Your task to perform on an android device: choose inbox layout in the gmail app Image 0: 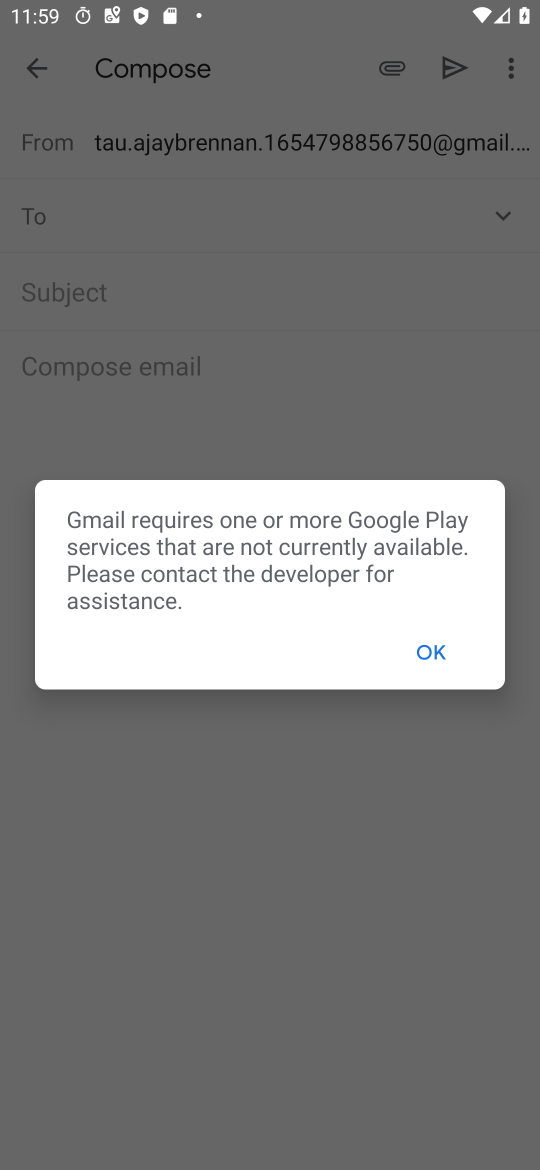
Step 0: click (420, 642)
Your task to perform on an android device: choose inbox layout in the gmail app Image 1: 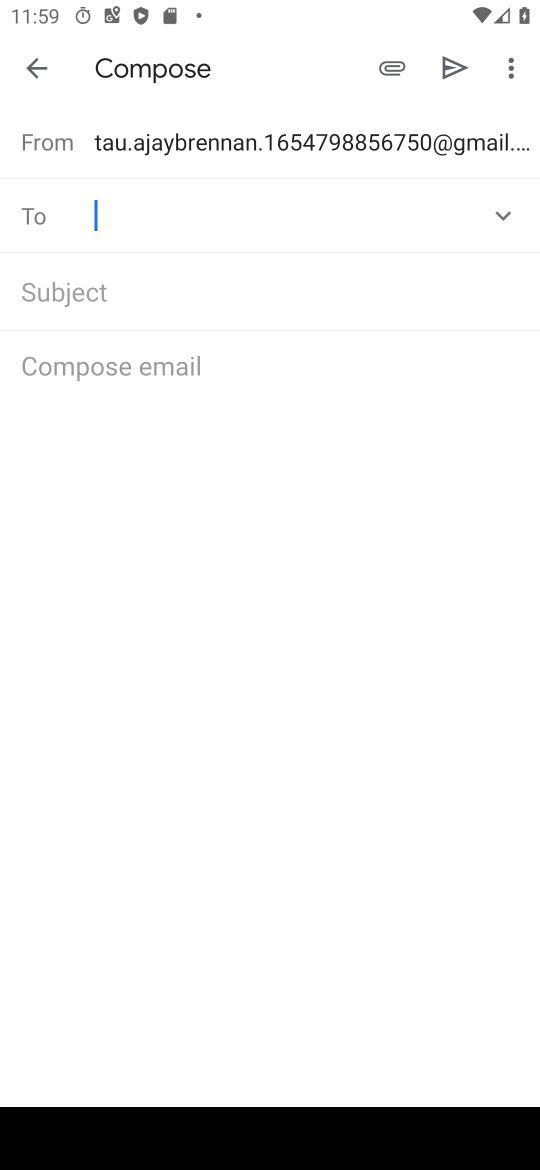
Step 1: click (40, 70)
Your task to perform on an android device: choose inbox layout in the gmail app Image 2: 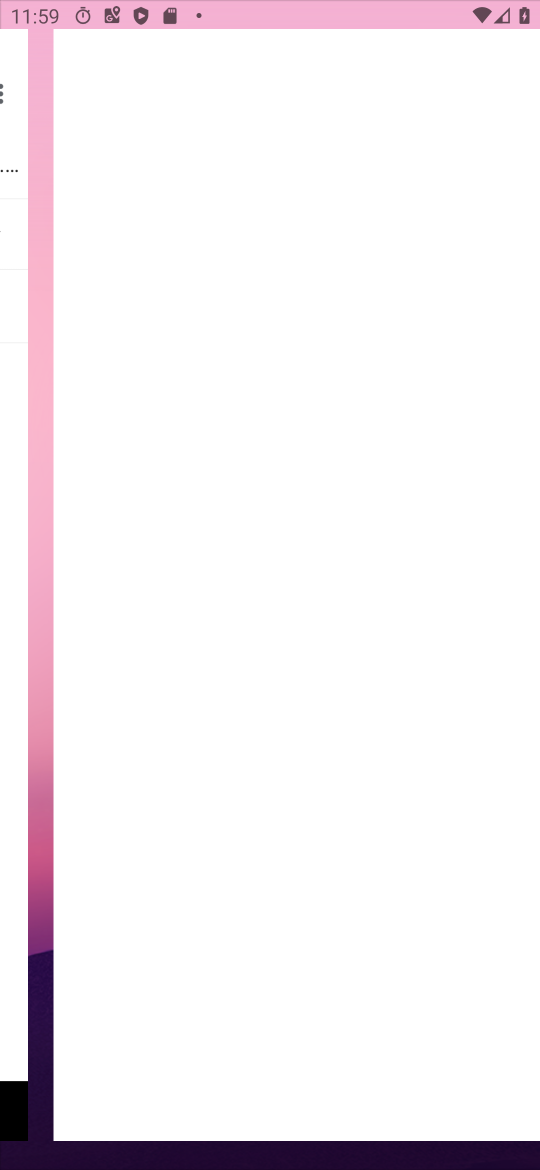
Step 2: press back button
Your task to perform on an android device: choose inbox layout in the gmail app Image 3: 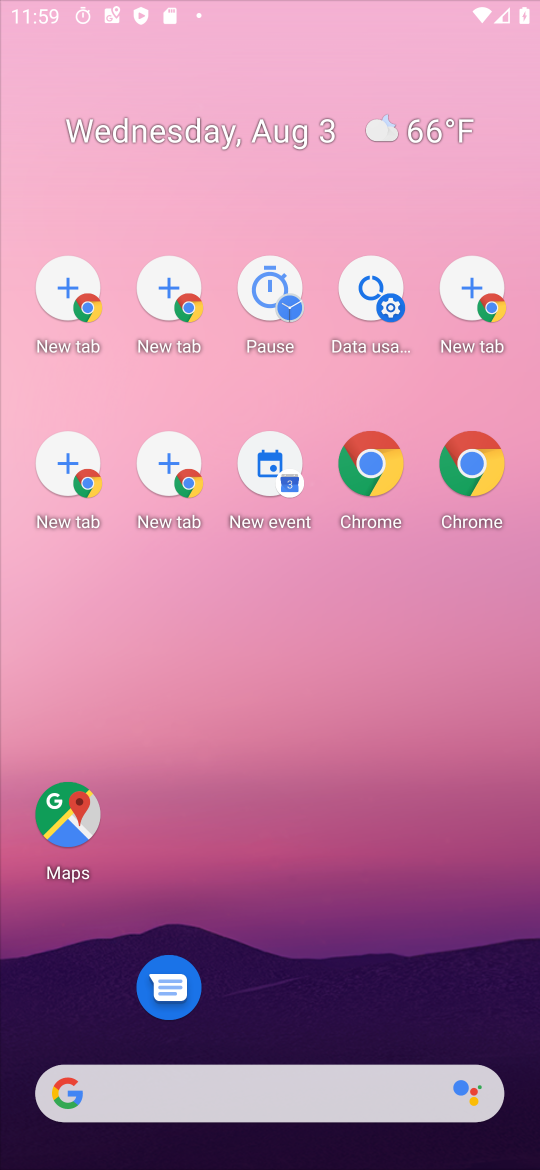
Step 3: press home button
Your task to perform on an android device: choose inbox layout in the gmail app Image 4: 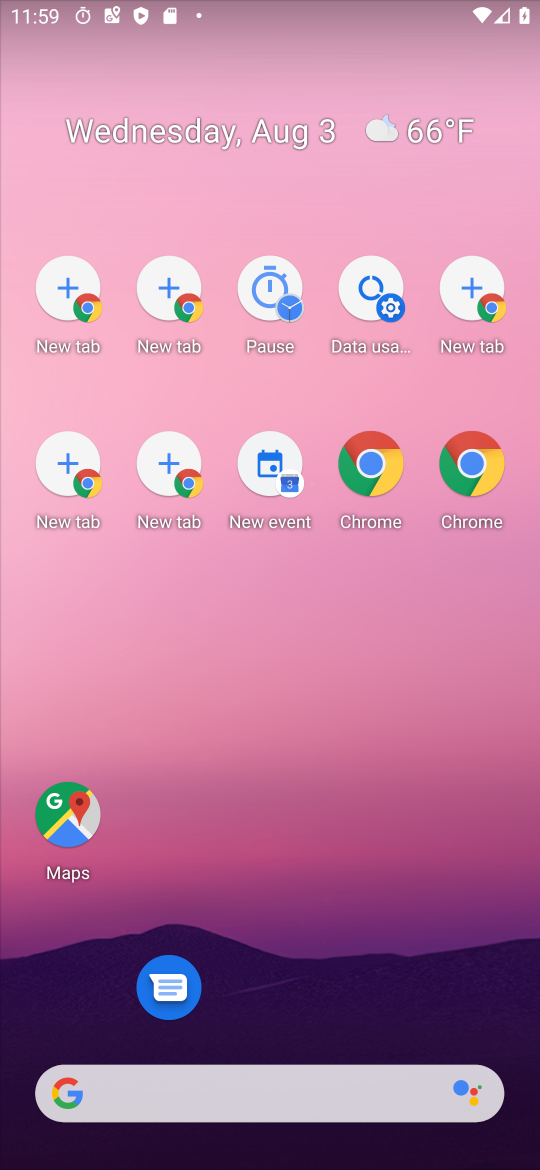
Step 4: drag from (368, 757) to (337, 534)
Your task to perform on an android device: choose inbox layout in the gmail app Image 5: 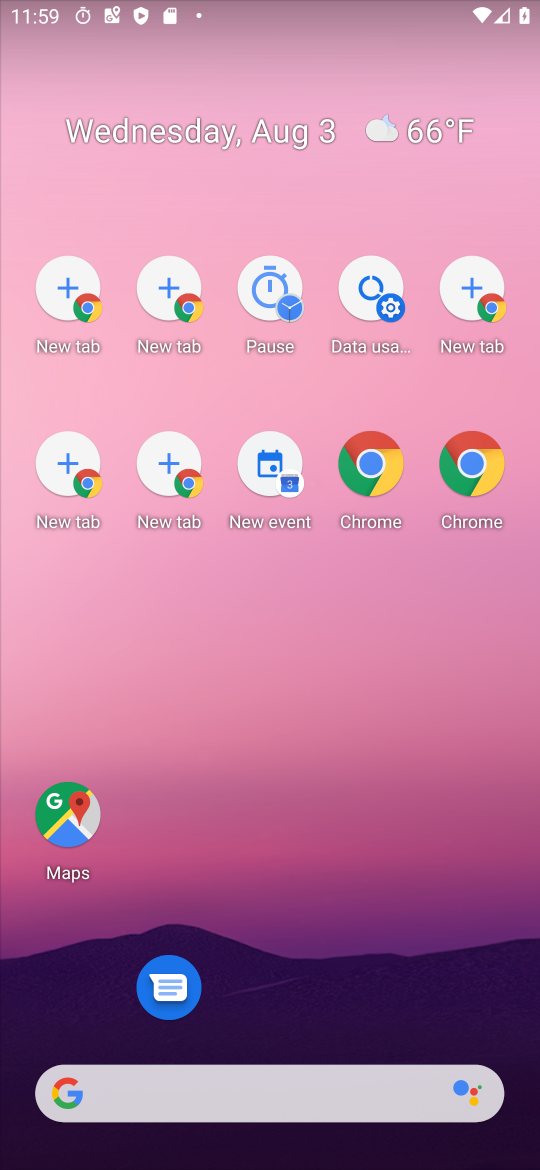
Step 5: drag from (369, 921) to (347, 449)
Your task to perform on an android device: choose inbox layout in the gmail app Image 6: 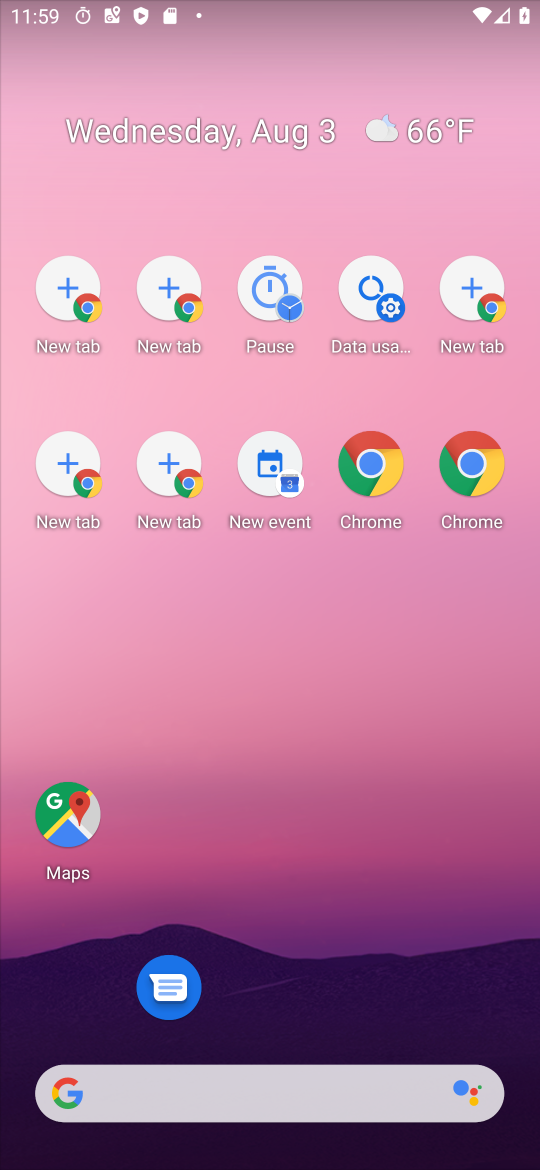
Step 6: drag from (264, 613) to (256, 142)
Your task to perform on an android device: choose inbox layout in the gmail app Image 7: 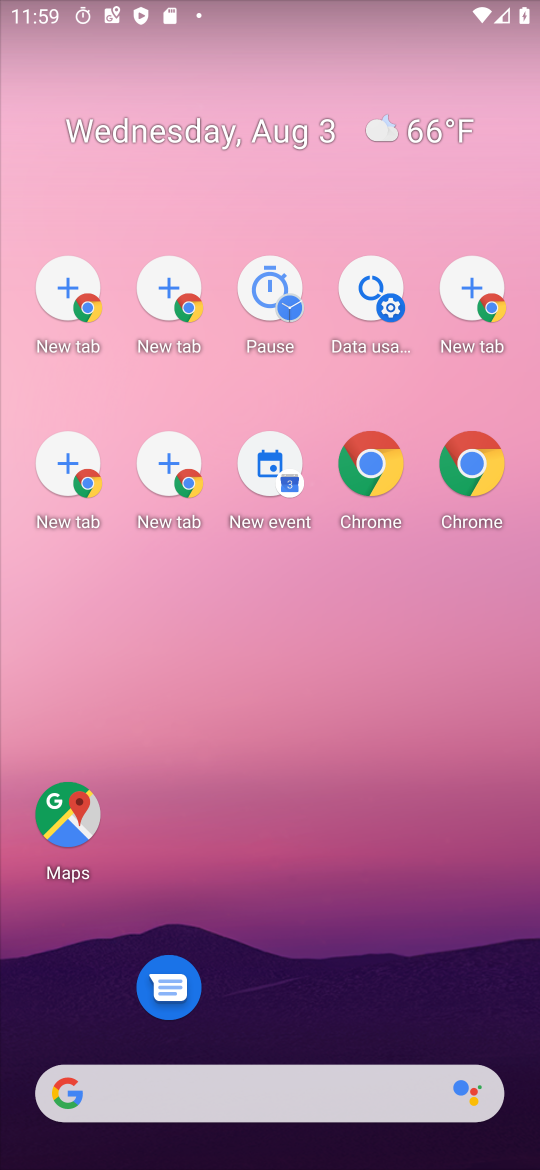
Step 7: drag from (275, 478) to (256, 338)
Your task to perform on an android device: choose inbox layout in the gmail app Image 8: 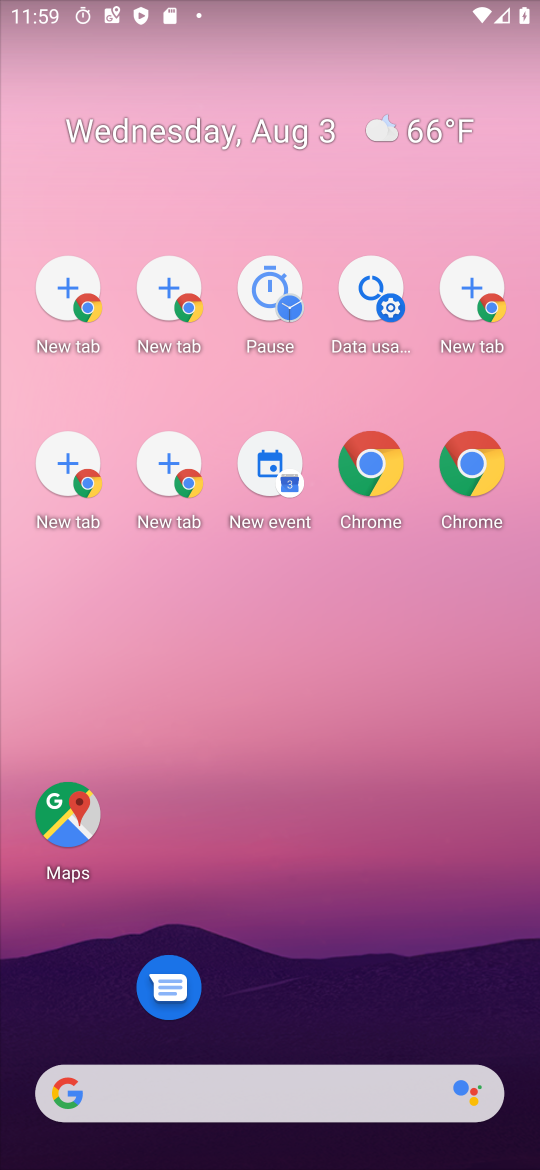
Step 8: drag from (300, 913) to (209, 357)
Your task to perform on an android device: choose inbox layout in the gmail app Image 9: 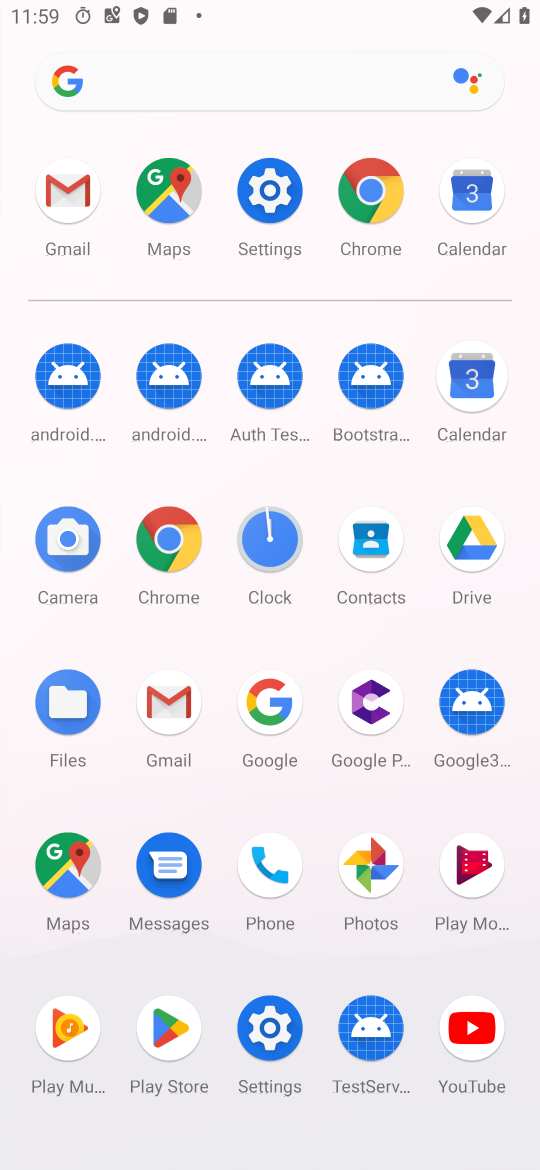
Step 9: click (73, 182)
Your task to perform on an android device: choose inbox layout in the gmail app Image 10: 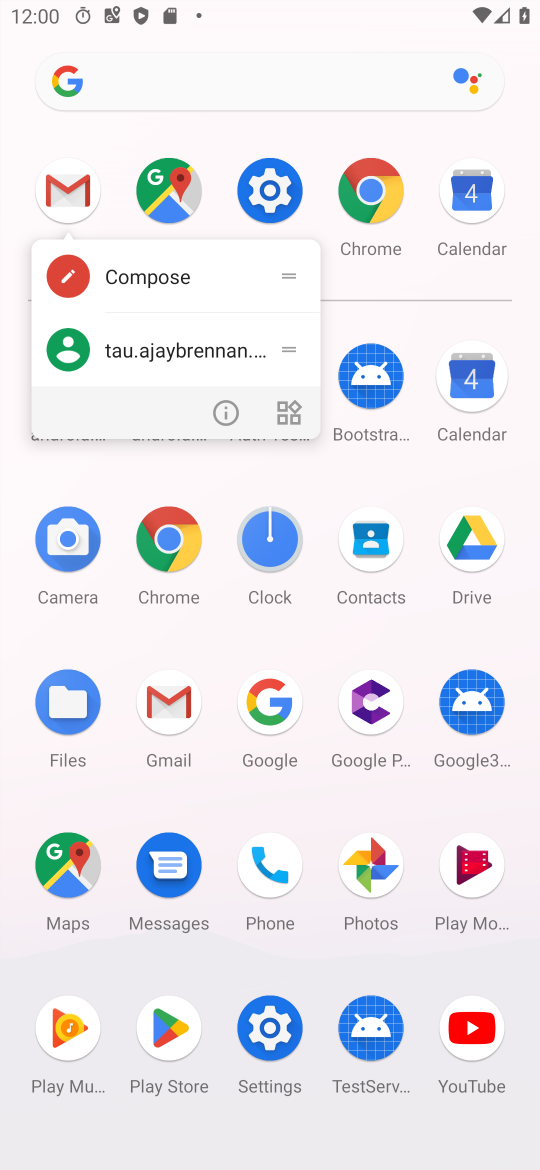
Step 10: click (133, 273)
Your task to perform on an android device: choose inbox layout in the gmail app Image 11: 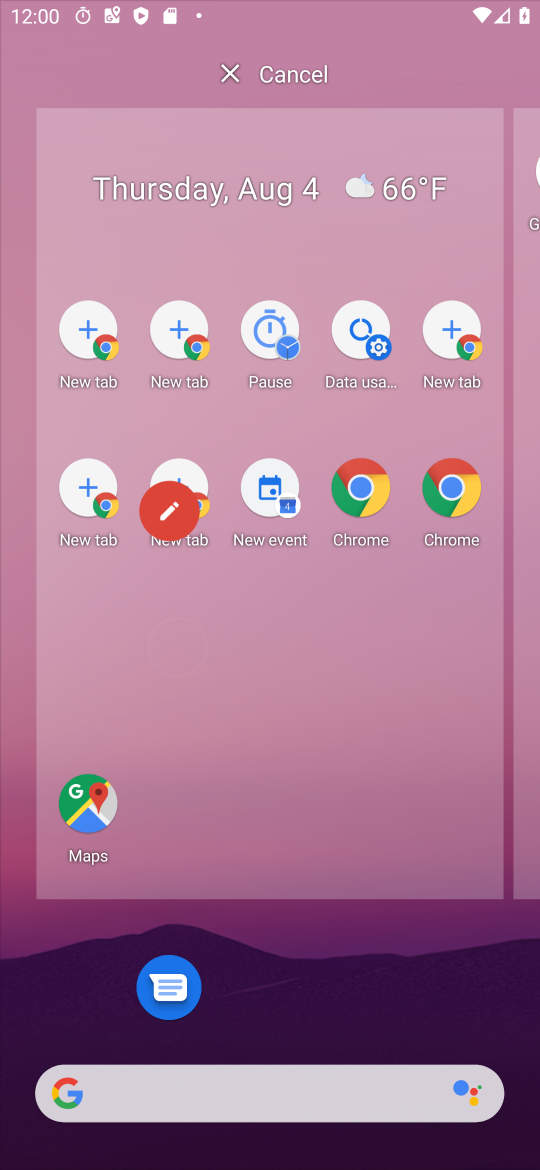
Step 11: click (150, 238)
Your task to perform on an android device: choose inbox layout in the gmail app Image 12: 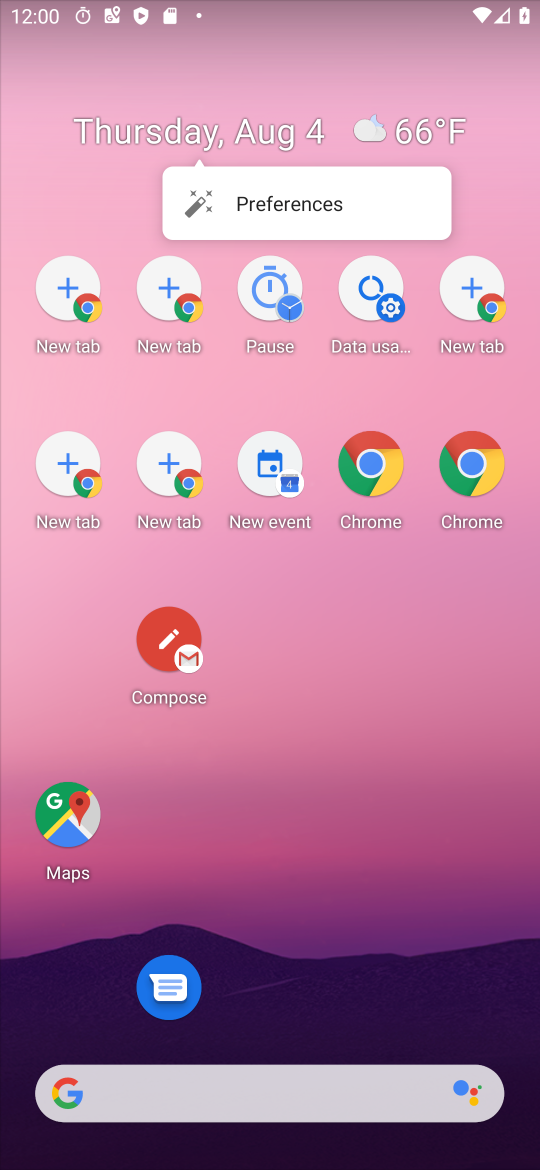
Step 12: click (167, 648)
Your task to perform on an android device: choose inbox layout in the gmail app Image 13: 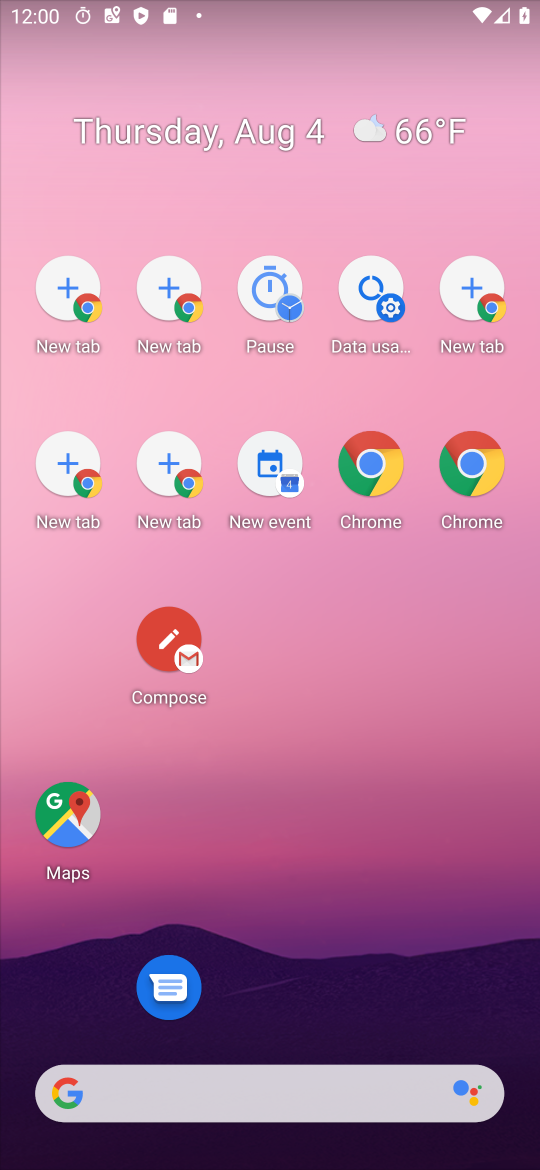
Step 13: press back button
Your task to perform on an android device: choose inbox layout in the gmail app Image 14: 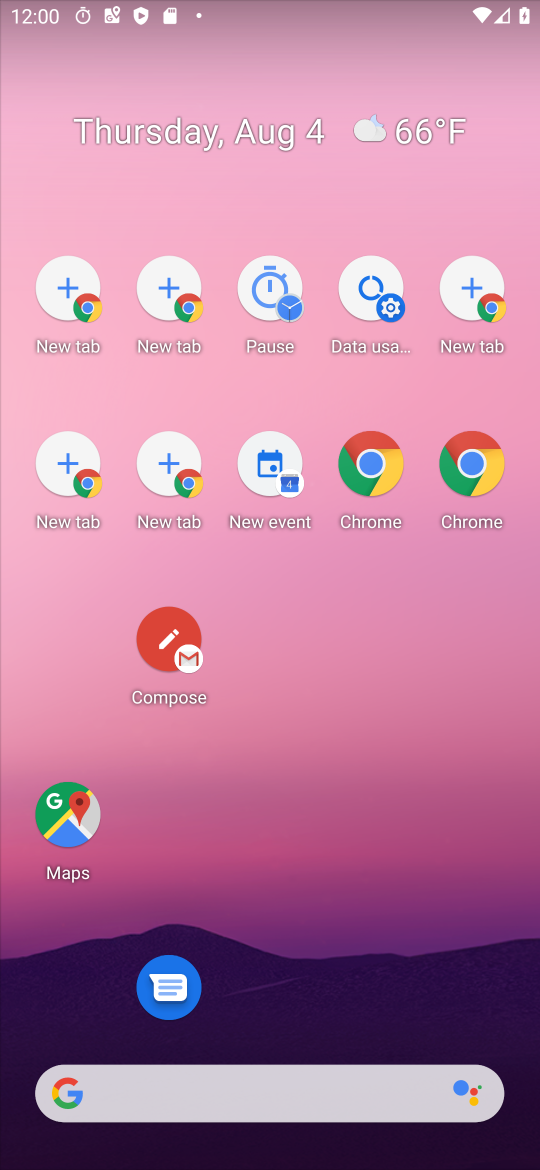
Step 14: drag from (329, 975) to (180, 141)
Your task to perform on an android device: choose inbox layout in the gmail app Image 15: 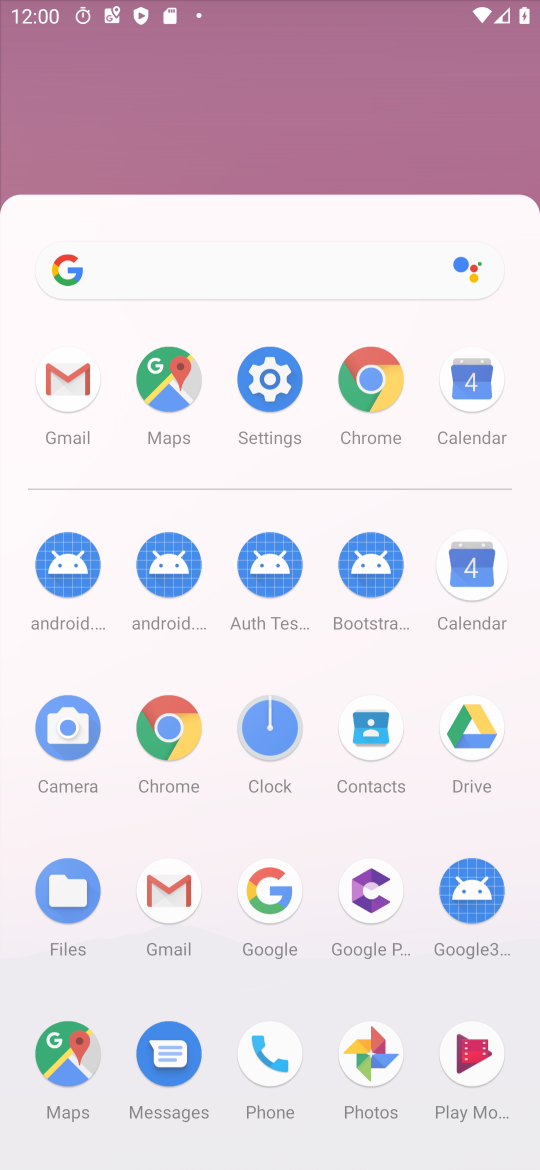
Step 15: drag from (310, 722) to (250, 59)
Your task to perform on an android device: choose inbox layout in the gmail app Image 16: 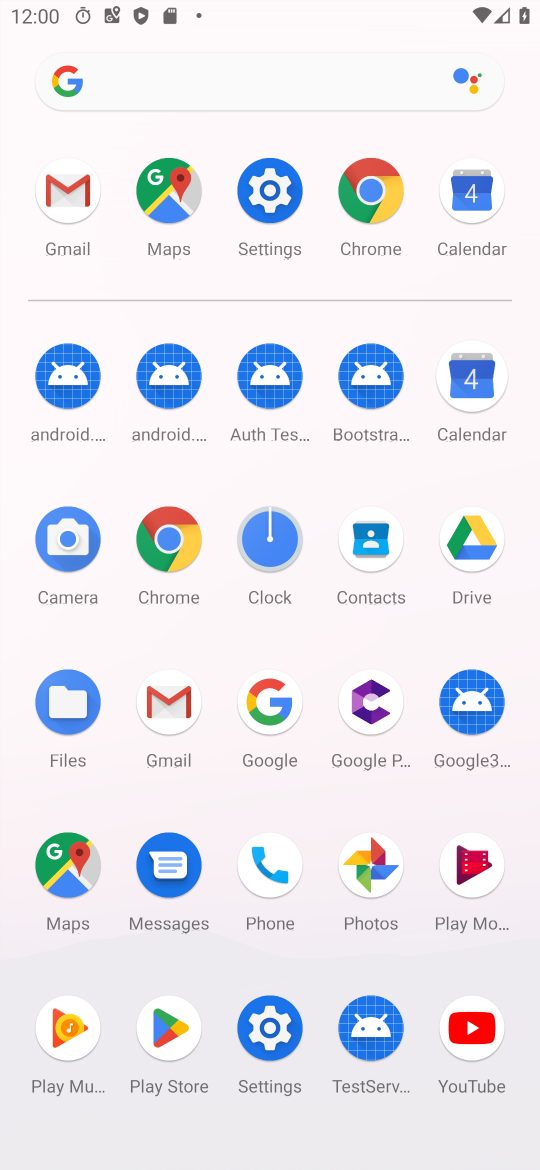
Step 16: click (161, 711)
Your task to perform on an android device: choose inbox layout in the gmail app Image 17: 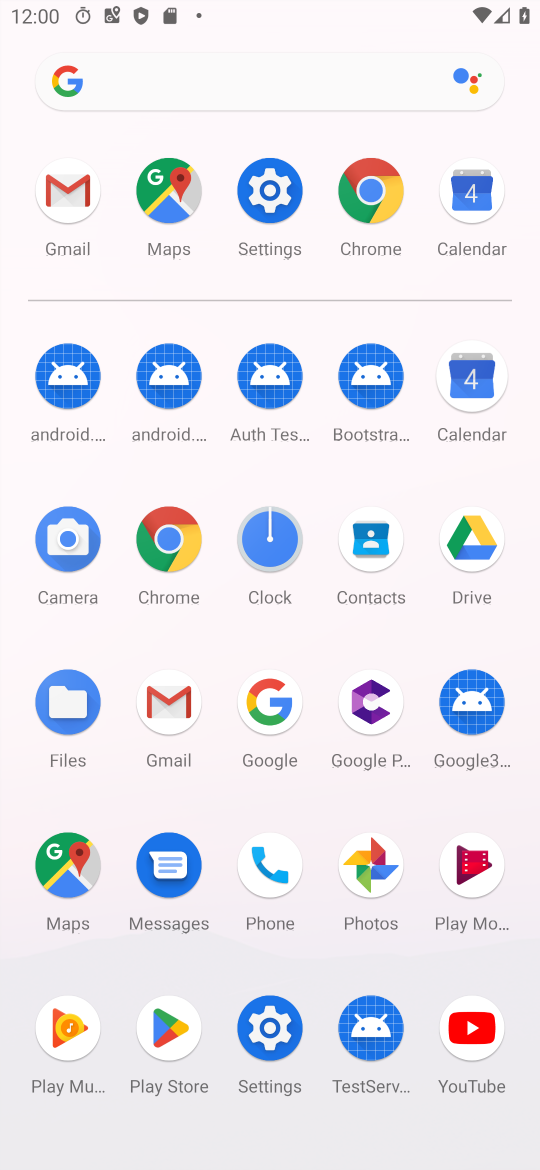
Step 17: click (161, 711)
Your task to perform on an android device: choose inbox layout in the gmail app Image 18: 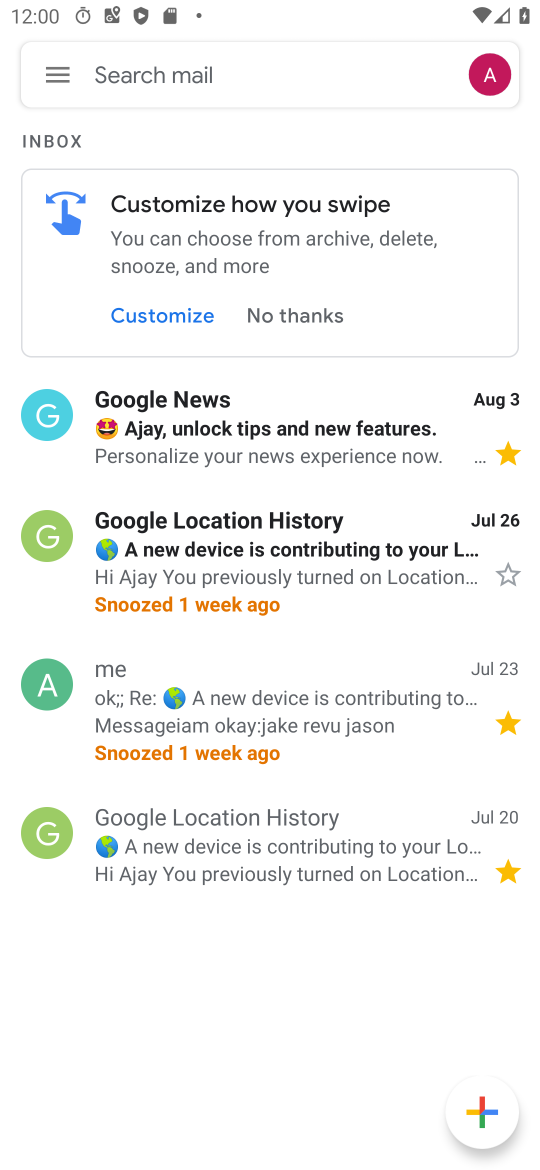
Step 18: click (56, 78)
Your task to perform on an android device: choose inbox layout in the gmail app Image 19: 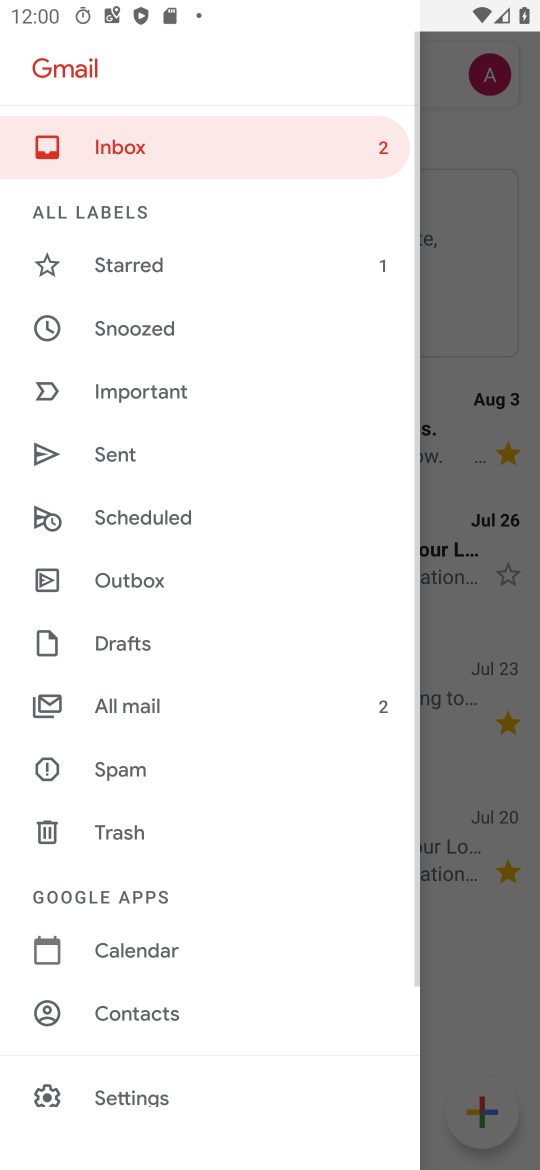
Step 19: drag from (139, 1001) to (263, 101)
Your task to perform on an android device: choose inbox layout in the gmail app Image 20: 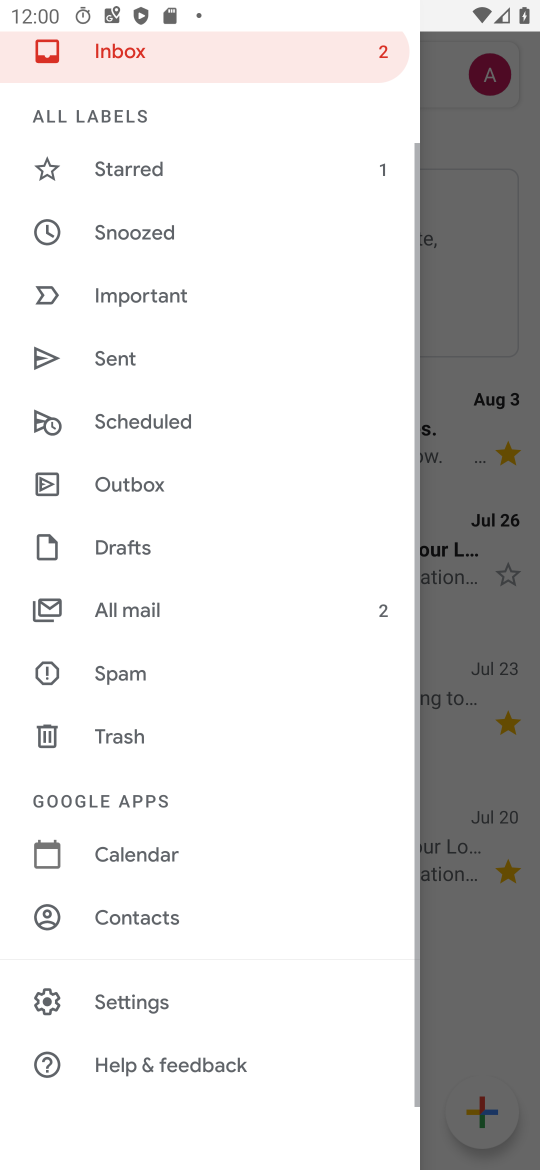
Step 20: click (116, 1004)
Your task to perform on an android device: choose inbox layout in the gmail app Image 21: 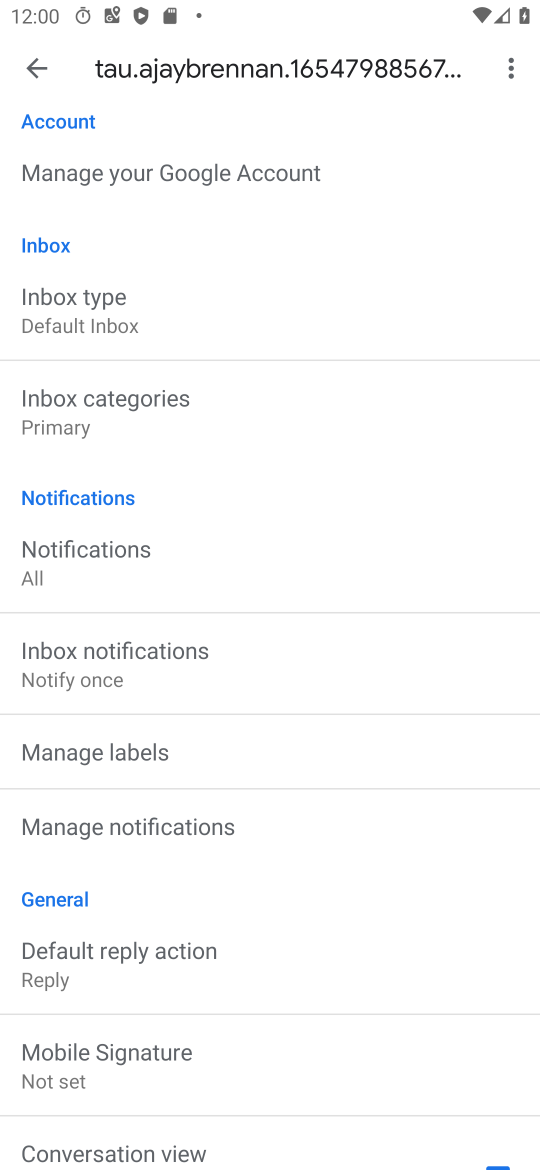
Step 21: click (69, 308)
Your task to perform on an android device: choose inbox layout in the gmail app Image 22: 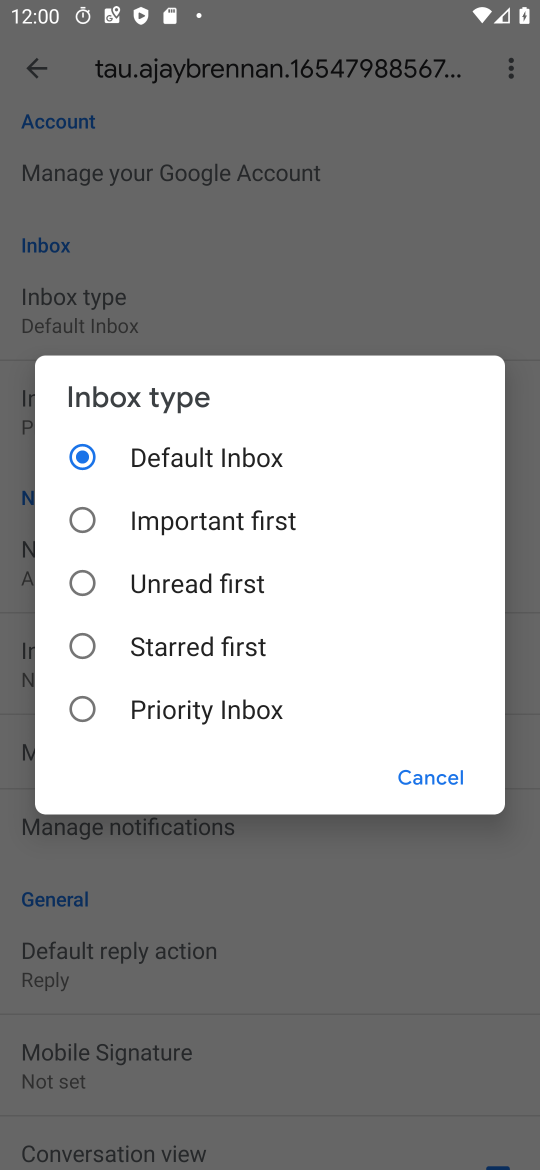
Step 22: click (156, 455)
Your task to perform on an android device: choose inbox layout in the gmail app Image 23: 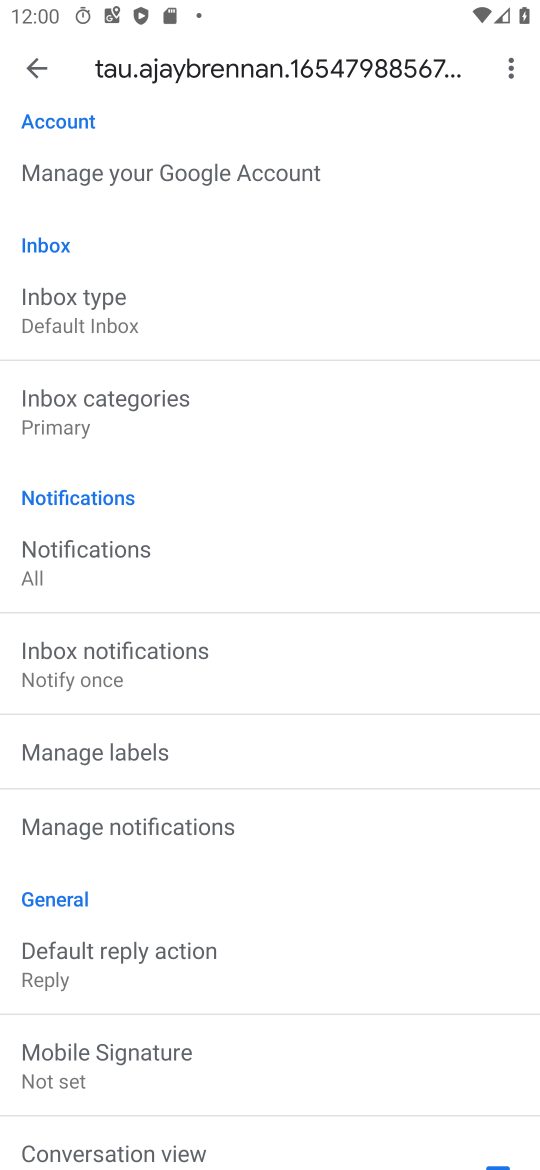
Step 23: click (448, 782)
Your task to perform on an android device: choose inbox layout in the gmail app Image 24: 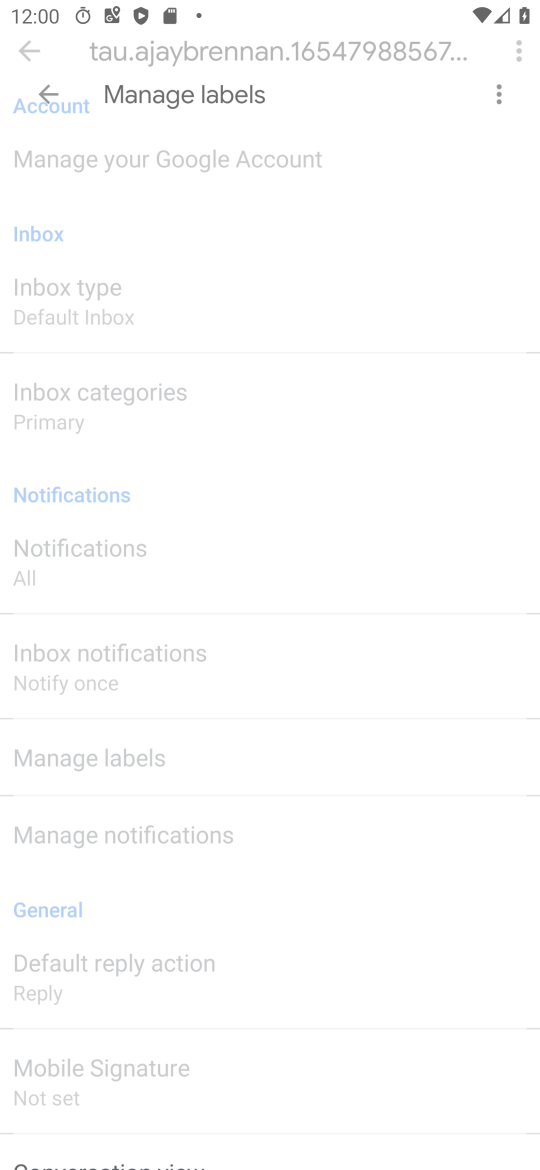
Step 24: task complete